Your task to perform on an android device: Open Google Maps and go to "Timeline" Image 0: 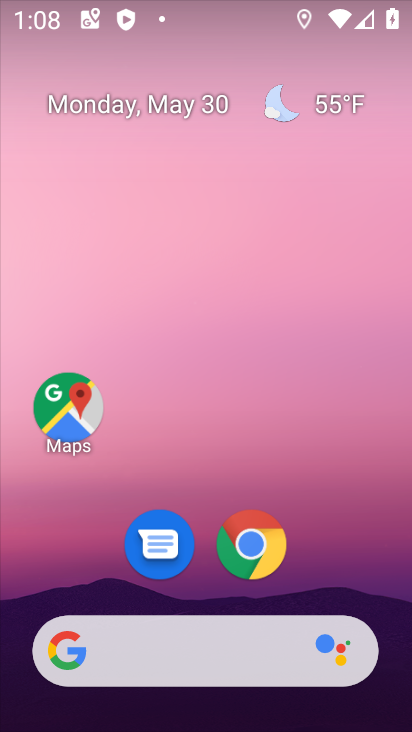
Step 0: click (76, 406)
Your task to perform on an android device: Open Google Maps and go to "Timeline" Image 1: 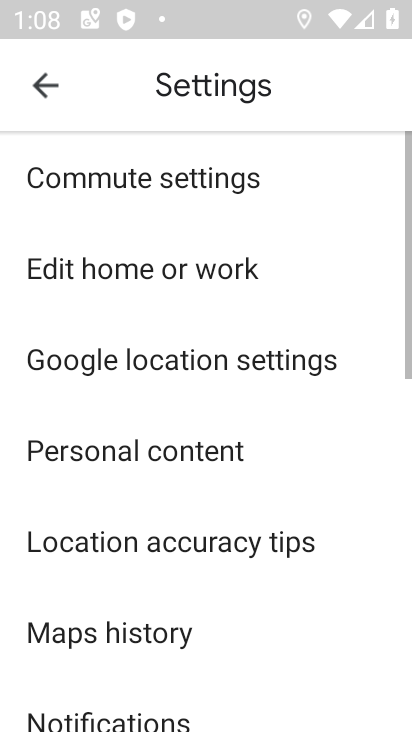
Step 1: click (34, 87)
Your task to perform on an android device: Open Google Maps and go to "Timeline" Image 2: 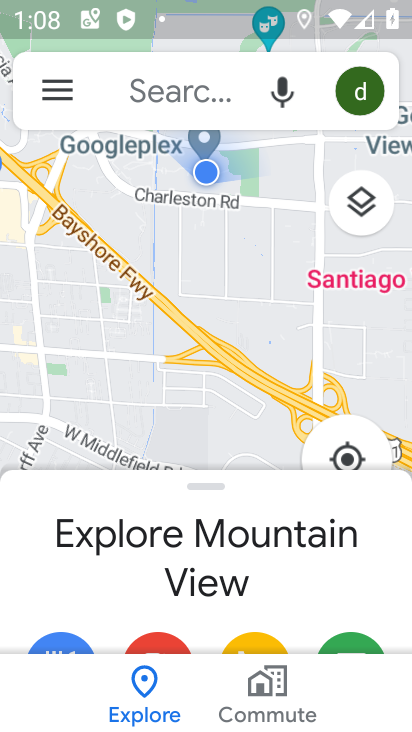
Step 2: click (52, 85)
Your task to perform on an android device: Open Google Maps and go to "Timeline" Image 3: 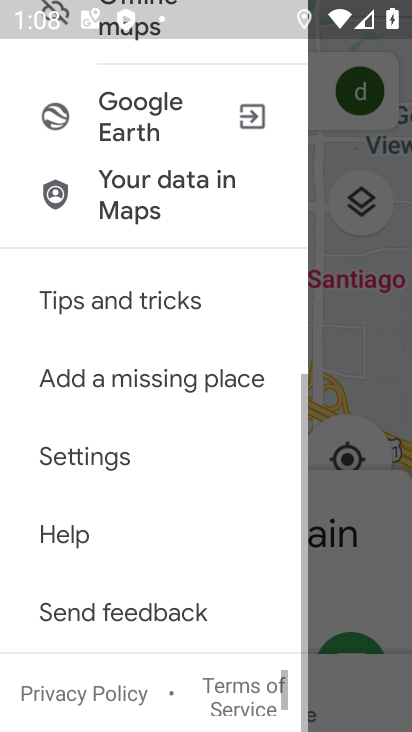
Step 3: drag from (136, 207) to (105, 699)
Your task to perform on an android device: Open Google Maps and go to "Timeline" Image 4: 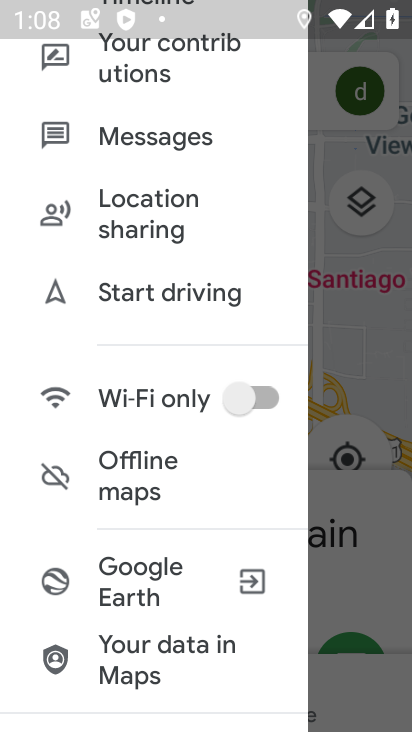
Step 4: drag from (144, 87) to (58, 624)
Your task to perform on an android device: Open Google Maps and go to "Timeline" Image 5: 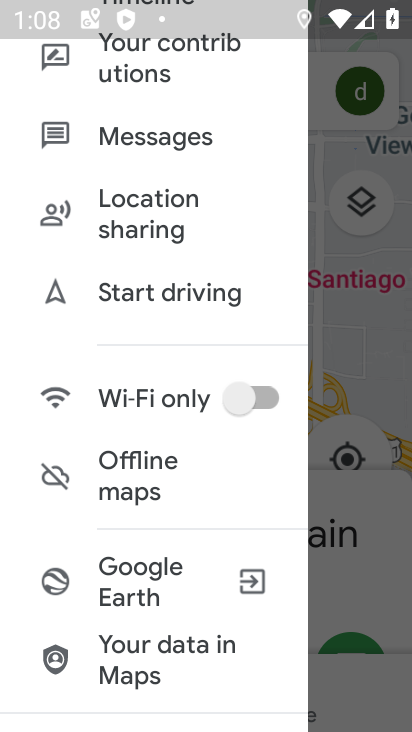
Step 5: drag from (102, 196) to (115, 598)
Your task to perform on an android device: Open Google Maps and go to "Timeline" Image 6: 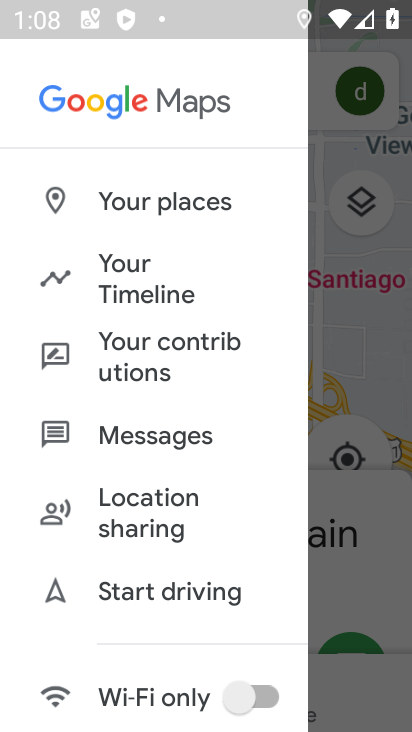
Step 6: click (125, 269)
Your task to perform on an android device: Open Google Maps and go to "Timeline" Image 7: 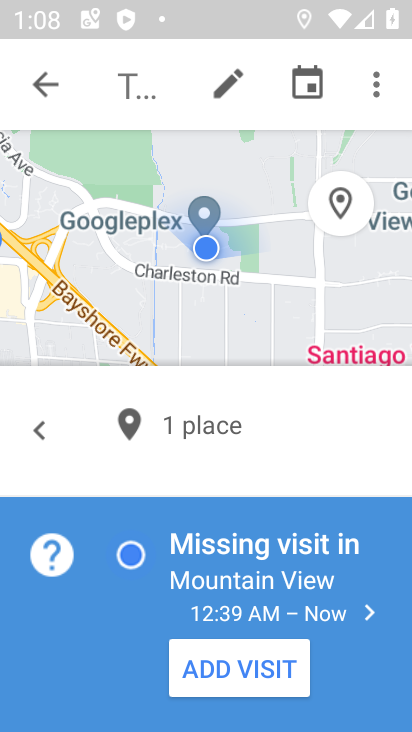
Step 7: task complete